Your task to perform on an android device: Go to Google Image 0: 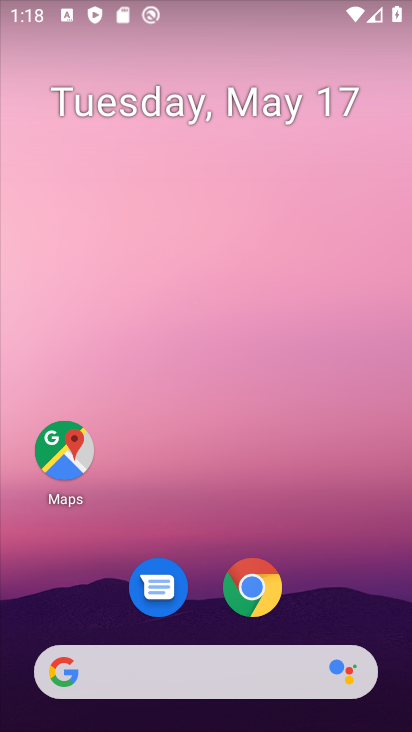
Step 0: drag from (192, 620) to (215, 303)
Your task to perform on an android device: Go to Google Image 1: 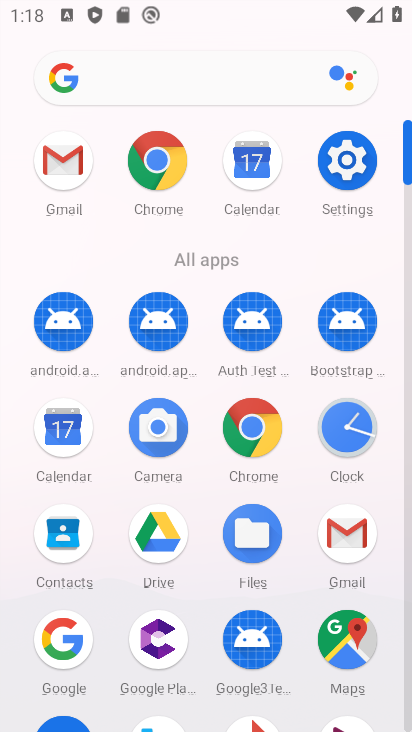
Step 1: drag from (197, 690) to (230, 329)
Your task to perform on an android device: Go to Google Image 2: 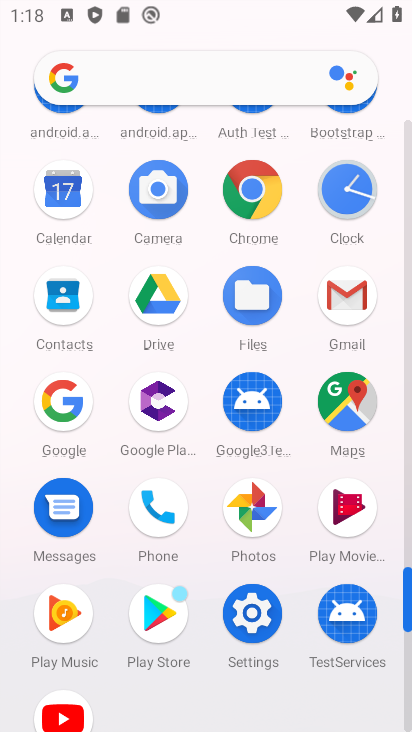
Step 2: click (66, 417)
Your task to perform on an android device: Go to Google Image 3: 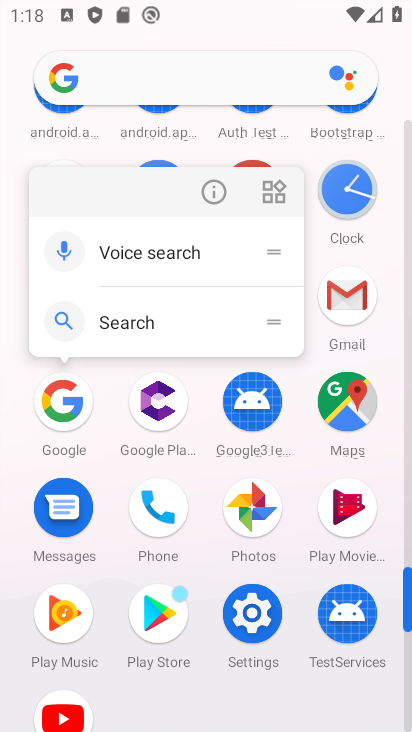
Step 3: click (208, 206)
Your task to perform on an android device: Go to Google Image 4: 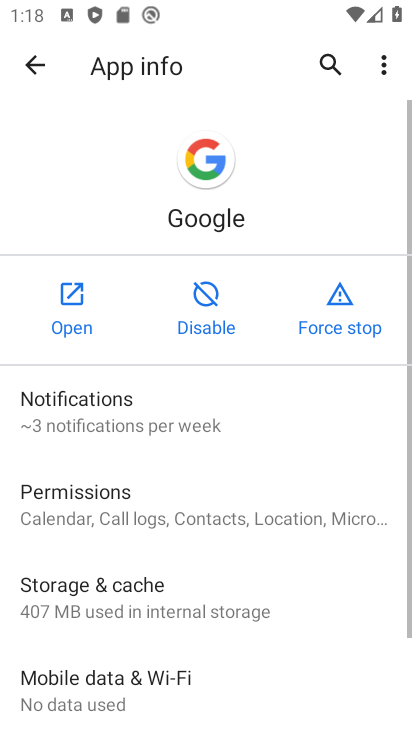
Step 4: click (80, 306)
Your task to perform on an android device: Go to Google Image 5: 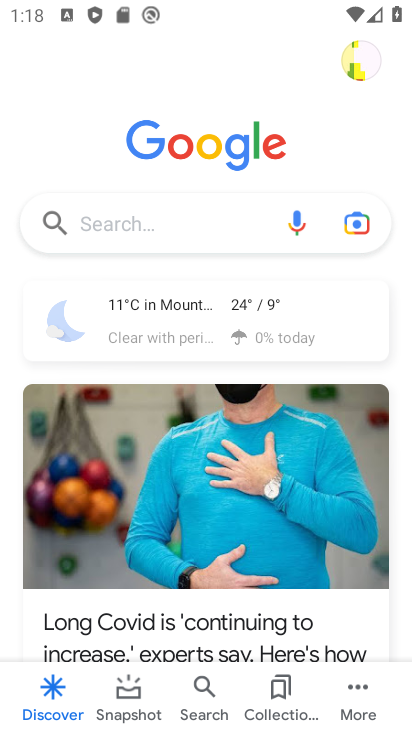
Step 5: drag from (255, 621) to (287, 233)
Your task to perform on an android device: Go to Google Image 6: 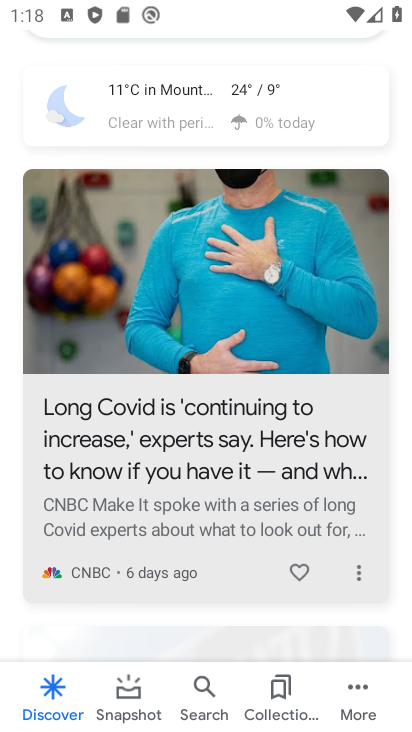
Step 6: drag from (287, 231) to (375, 731)
Your task to perform on an android device: Go to Google Image 7: 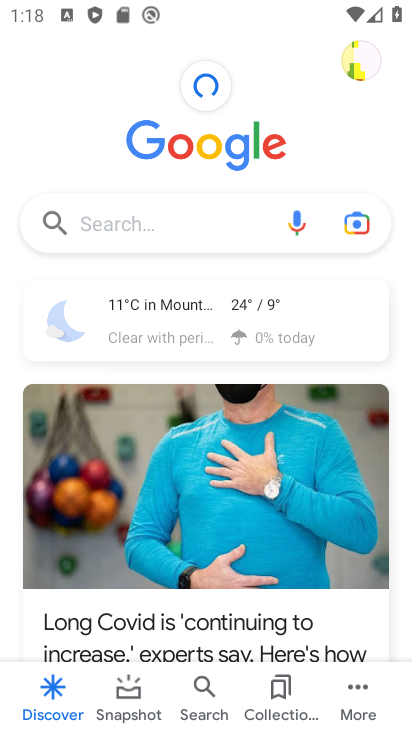
Step 7: click (345, 692)
Your task to perform on an android device: Go to Google Image 8: 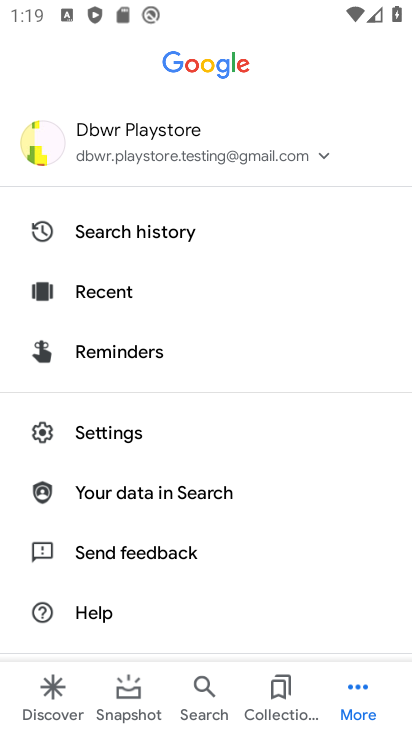
Step 8: task complete